Your task to perform on an android device: change text size in settings app Image 0: 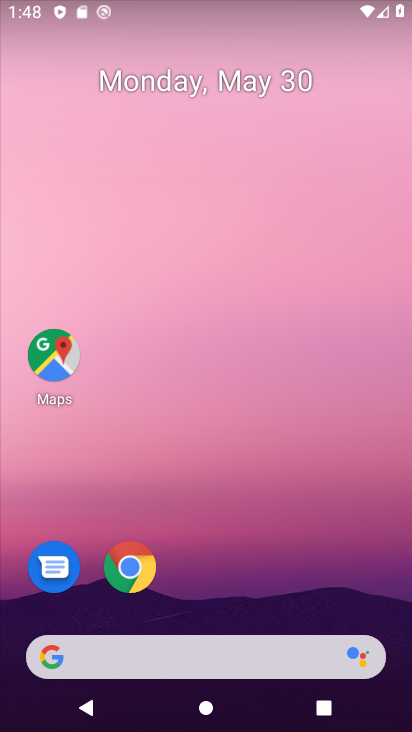
Step 0: drag from (283, 589) to (334, 84)
Your task to perform on an android device: change text size in settings app Image 1: 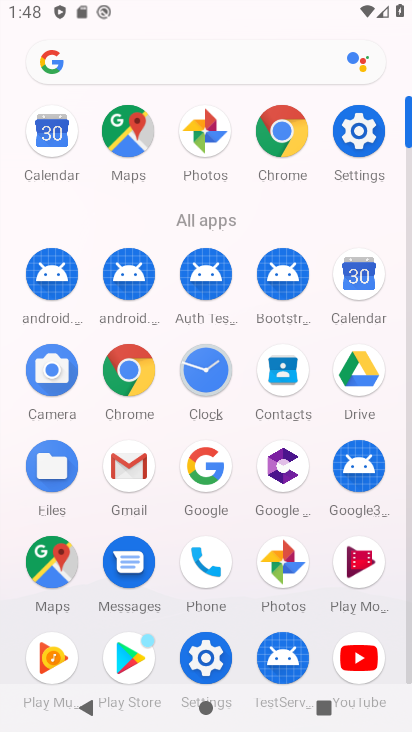
Step 1: click (350, 140)
Your task to perform on an android device: change text size in settings app Image 2: 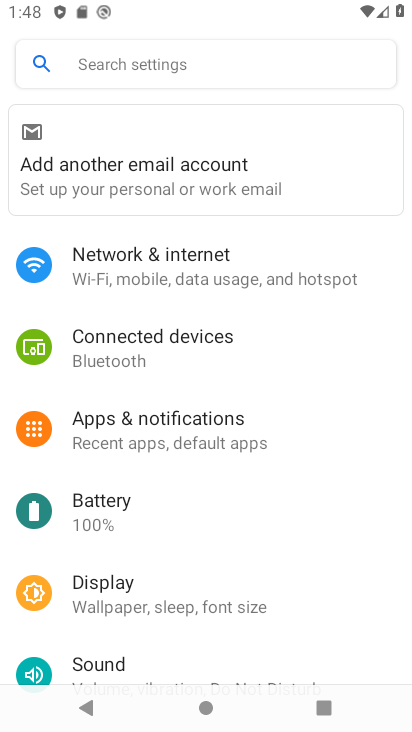
Step 2: click (115, 585)
Your task to perform on an android device: change text size in settings app Image 3: 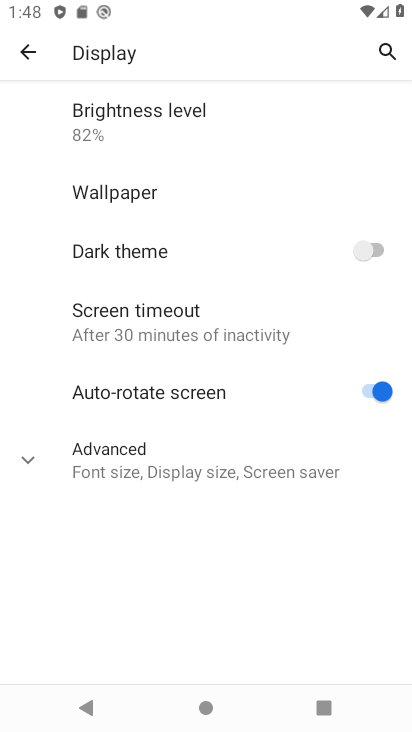
Step 3: click (146, 475)
Your task to perform on an android device: change text size in settings app Image 4: 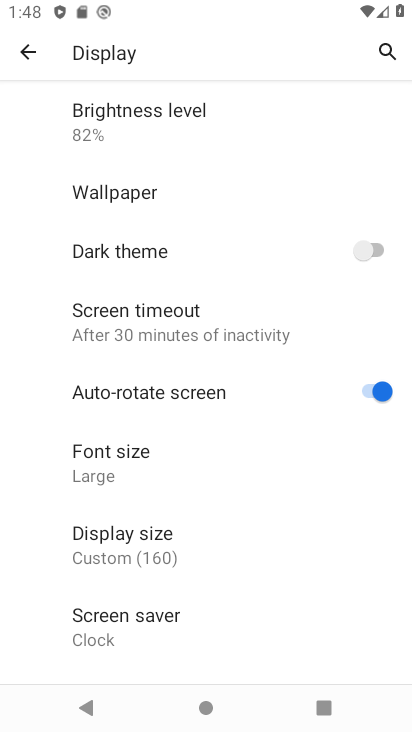
Step 4: click (146, 475)
Your task to perform on an android device: change text size in settings app Image 5: 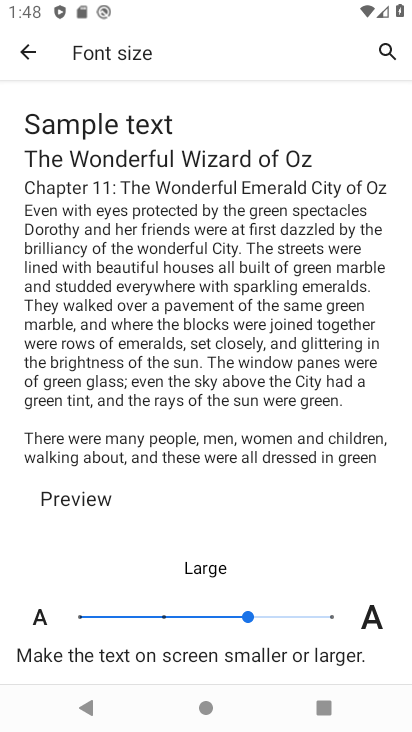
Step 5: click (362, 620)
Your task to perform on an android device: change text size in settings app Image 6: 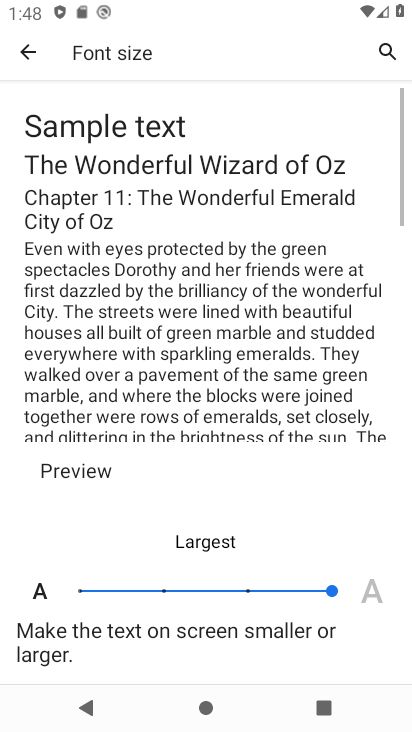
Step 6: task complete